Your task to perform on an android device: toggle priority inbox in the gmail app Image 0: 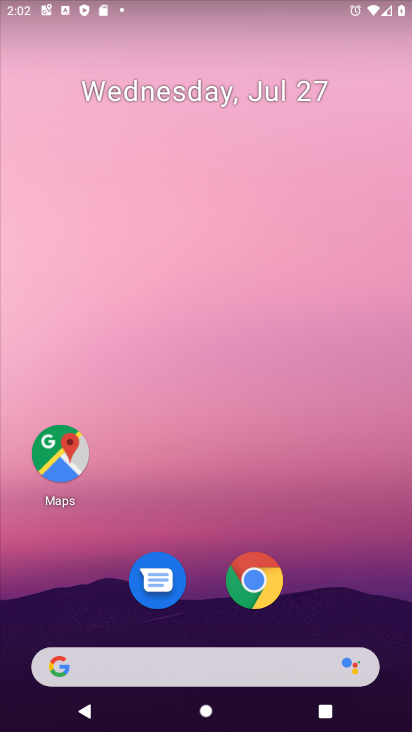
Step 0: click (248, 589)
Your task to perform on an android device: toggle priority inbox in the gmail app Image 1: 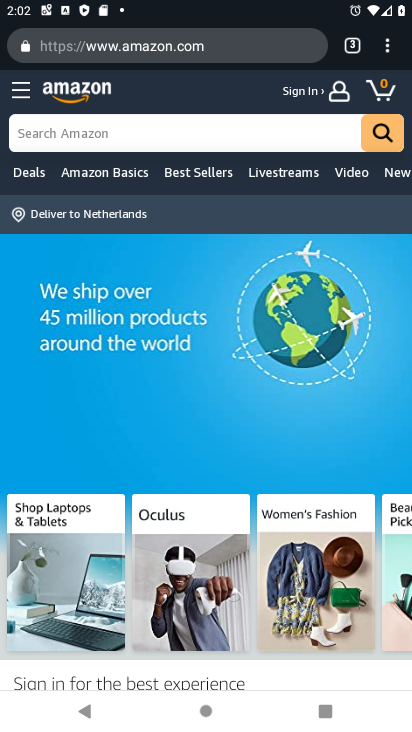
Step 1: press home button
Your task to perform on an android device: toggle priority inbox in the gmail app Image 2: 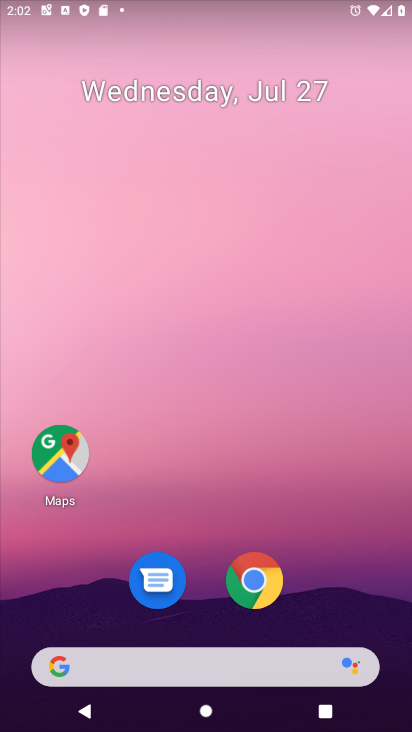
Step 2: drag from (289, 662) to (294, 218)
Your task to perform on an android device: toggle priority inbox in the gmail app Image 3: 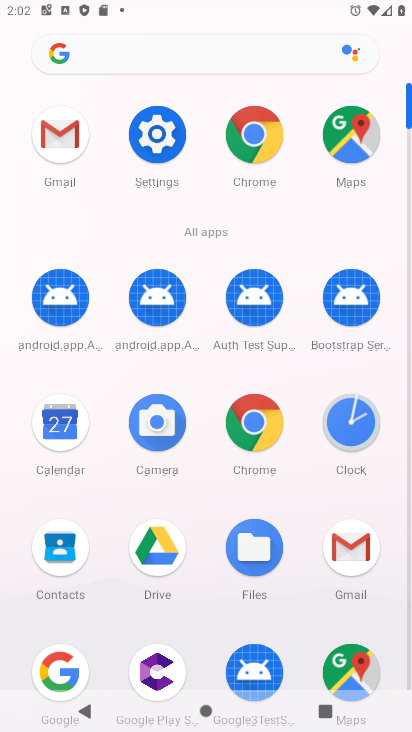
Step 3: click (84, 144)
Your task to perform on an android device: toggle priority inbox in the gmail app Image 4: 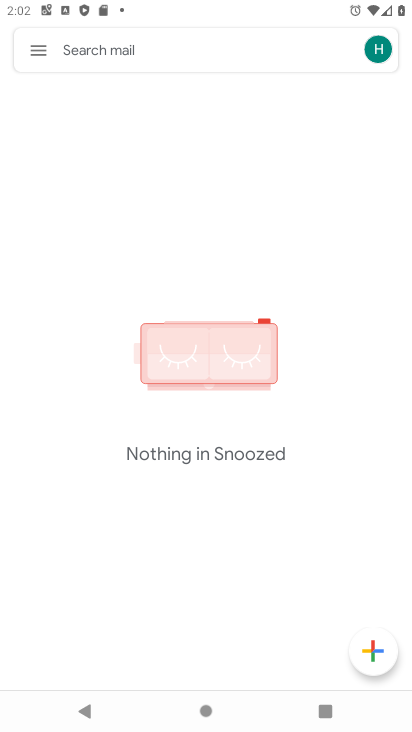
Step 4: click (34, 41)
Your task to perform on an android device: toggle priority inbox in the gmail app Image 5: 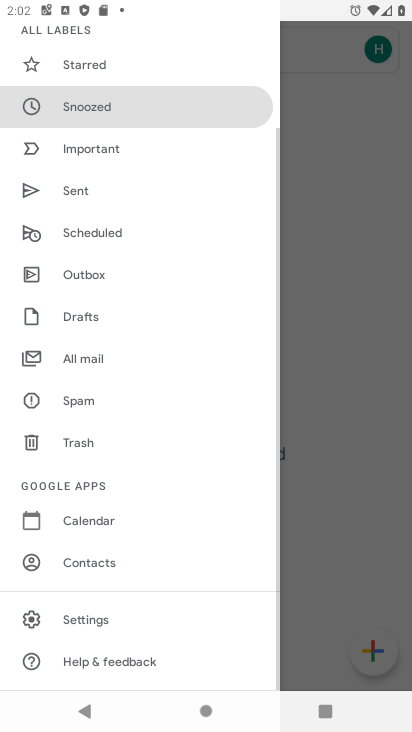
Step 5: click (103, 624)
Your task to perform on an android device: toggle priority inbox in the gmail app Image 6: 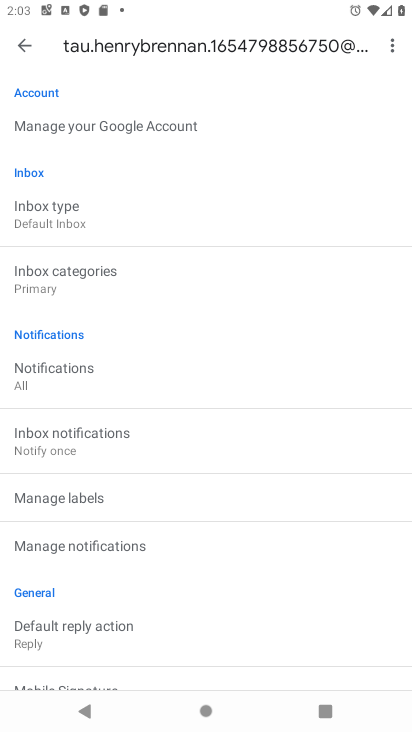
Step 6: click (77, 214)
Your task to perform on an android device: toggle priority inbox in the gmail app Image 7: 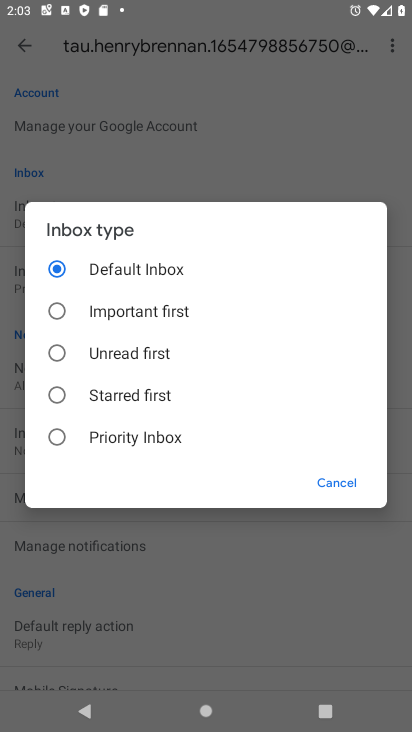
Step 7: click (163, 432)
Your task to perform on an android device: toggle priority inbox in the gmail app Image 8: 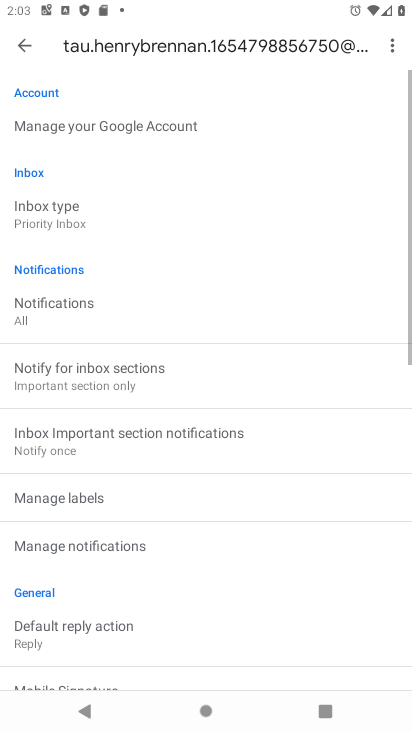
Step 8: click (60, 215)
Your task to perform on an android device: toggle priority inbox in the gmail app Image 9: 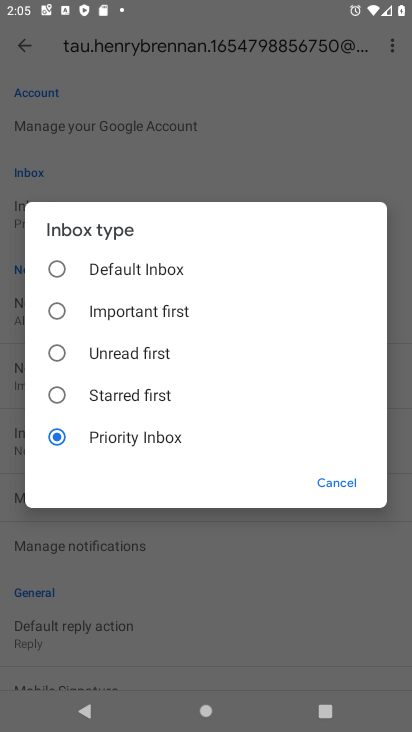
Step 9: task complete